Your task to perform on an android device: What's the weather going to be this weekend? Image 0: 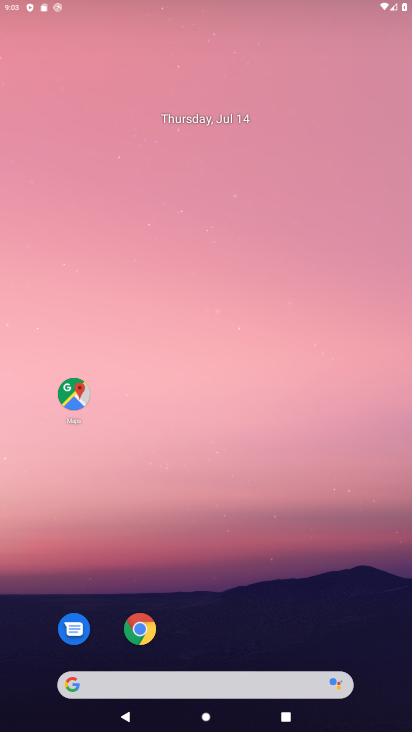
Step 0: drag from (229, 627) to (229, 184)
Your task to perform on an android device: What's the weather going to be this weekend? Image 1: 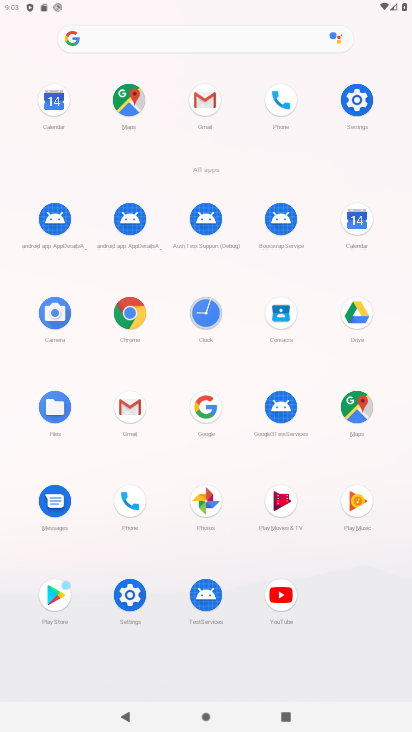
Step 1: click (129, 405)
Your task to perform on an android device: What's the weather going to be this weekend? Image 2: 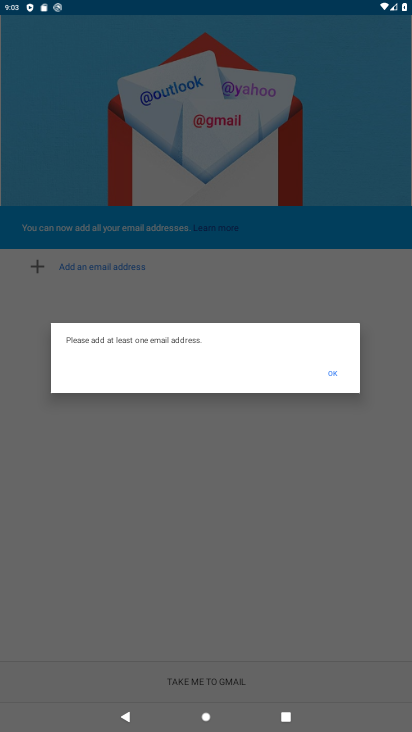
Step 2: click (334, 379)
Your task to perform on an android device: What's the weather going to be this weekend? Image 3: 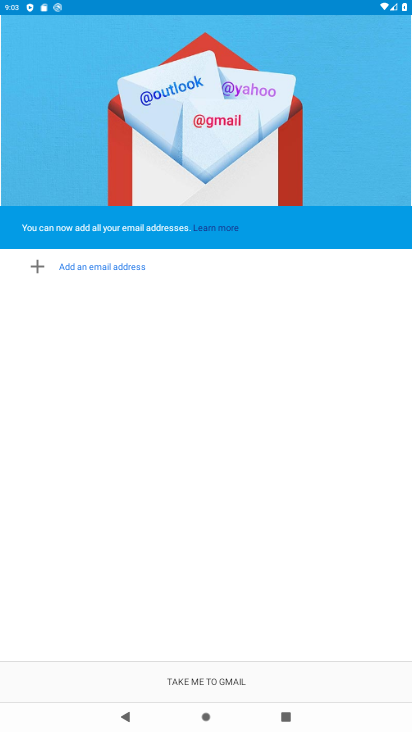
Step 3: task complete